Your task to perform on an android device: install app "Move to iOS" Image 0: 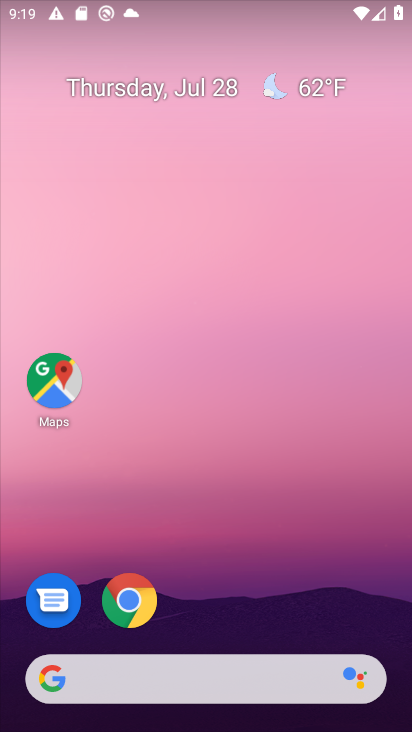
Step 0: drag from (220, 612) to (213, 6)
Your task to perform on an android device: install app "Move to iOS" Image 1: 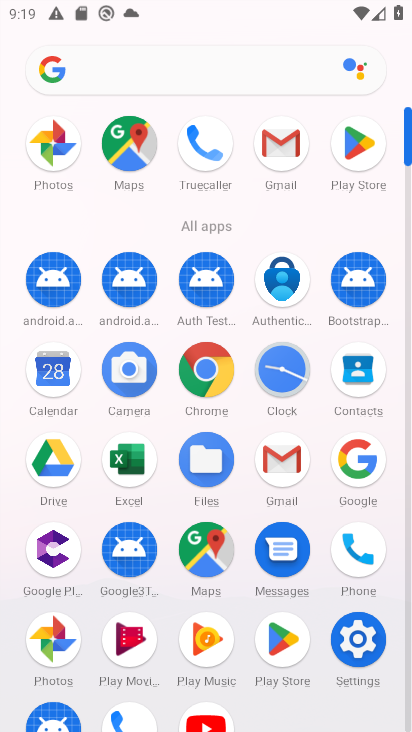
Step 1: click (350, 151)
Your task to perform on an android device: install app "Move to iOS" Image 2: 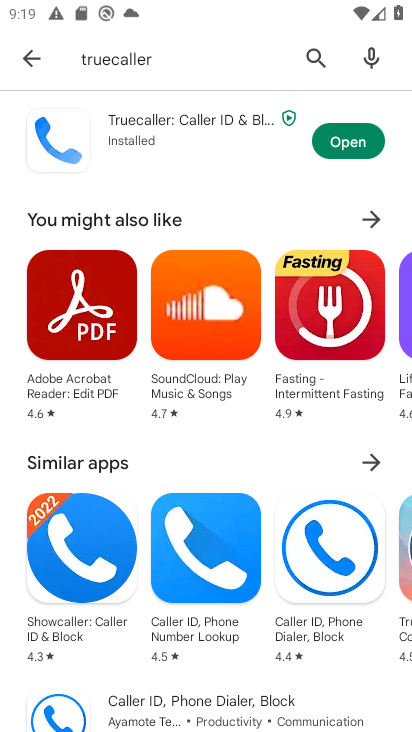
Step 2: click (308, 60)
Your task to perform on an android device: install app "Move to iOS" Image 3: 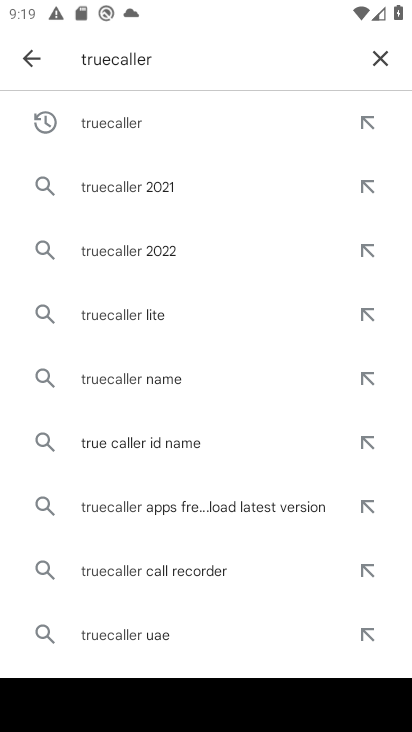
Step 3: click (373, 61)
Your task to perform on an android device: install app "Move to iOS" Image 4: 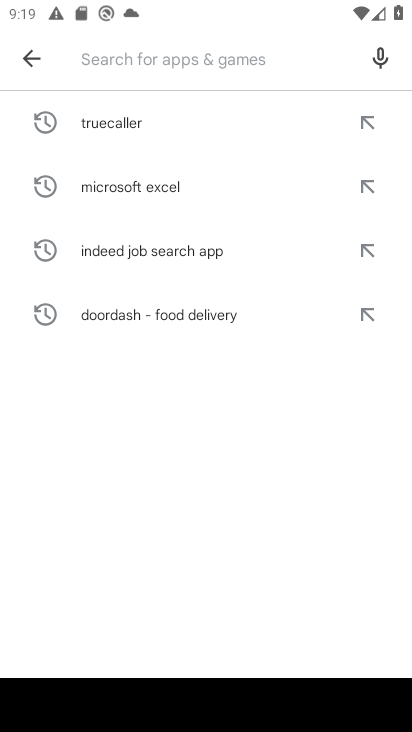
Step 4: click (210, 65)
Your task to perform on an android device: install app "Move to iOS" Image 5: 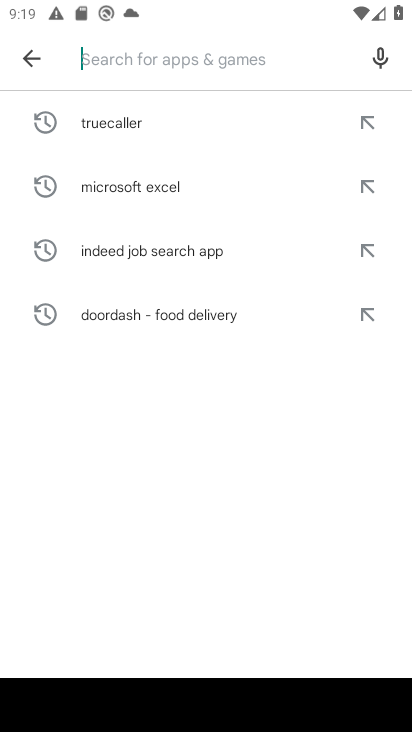
Step 5: type "Move to iOS"
Your task to perform on an android device: install app "Move to iOS" Image 6: 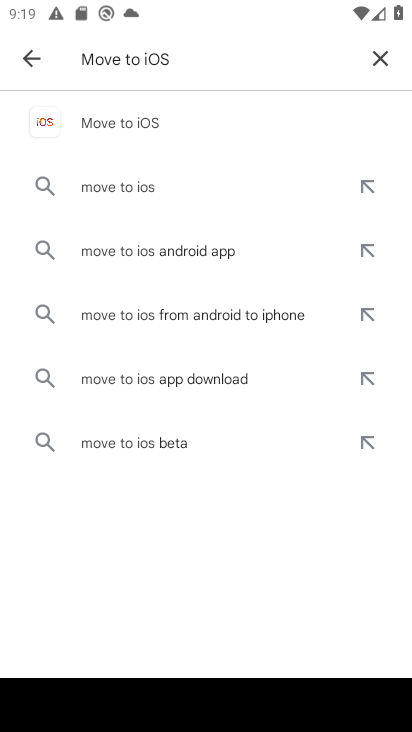
Step 6: click (130, 125)
Your task to perform on an android device: install app "Move to iOS" Image 7: 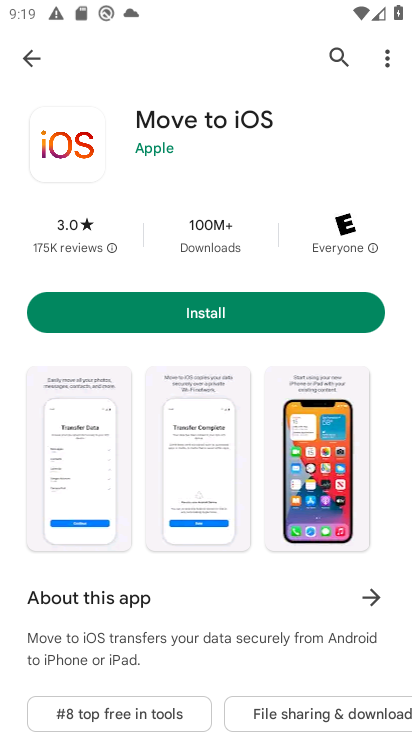
Step 7: click (177, 316)
Your task to perform on an android device: install app "Move to iOS" Image 8: 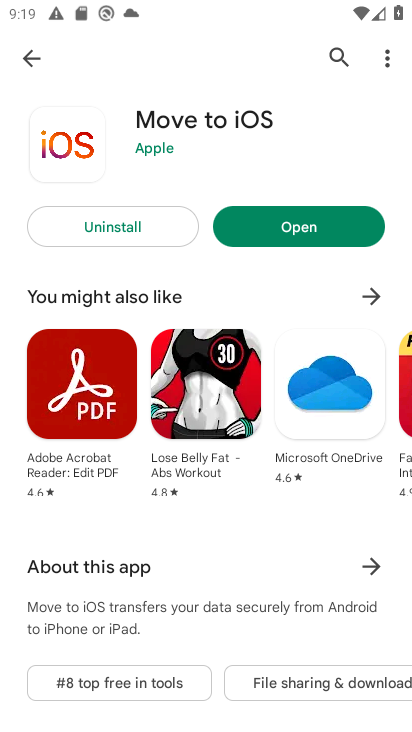
Step 8: task complete